Your task to perform on an android device: Open display settings Image 0: 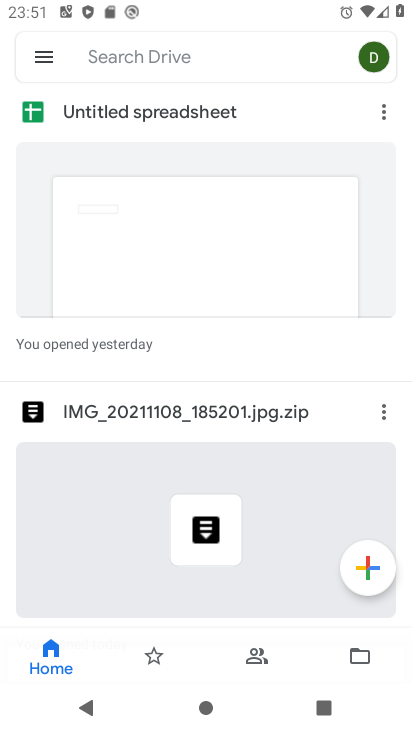
Step 0: press home button
Your task to perform on an android device: Open display settings Image 1: 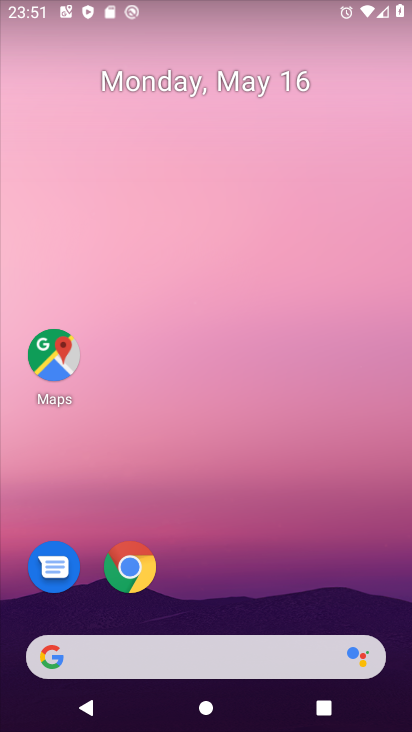
Step 1: drag from (242, 516) to (155, 146)
Your task to perform on an android device: Open display settings Image 2: 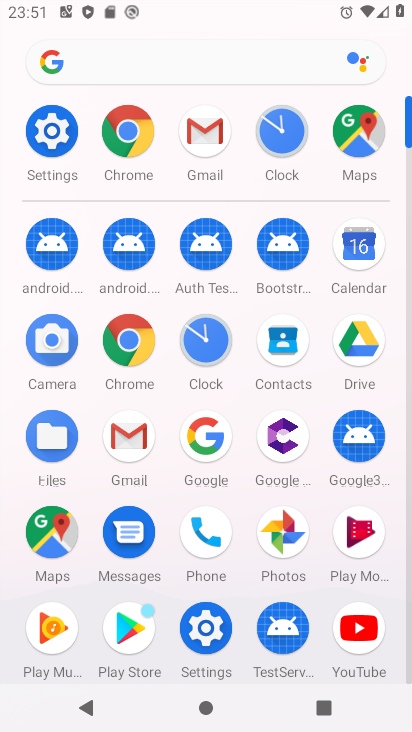
Step 2: click (58, 126)
Your task to perform on an android device: Open display settings Image 3: 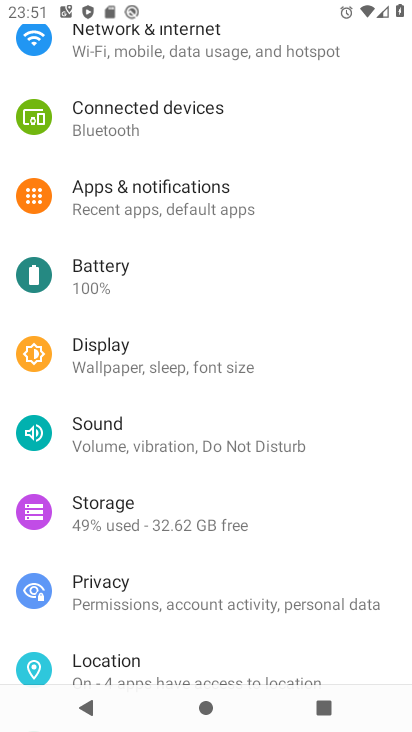
Step 3: click (99, 345)
Your task to perform on an android device: Open display settings Image 4: 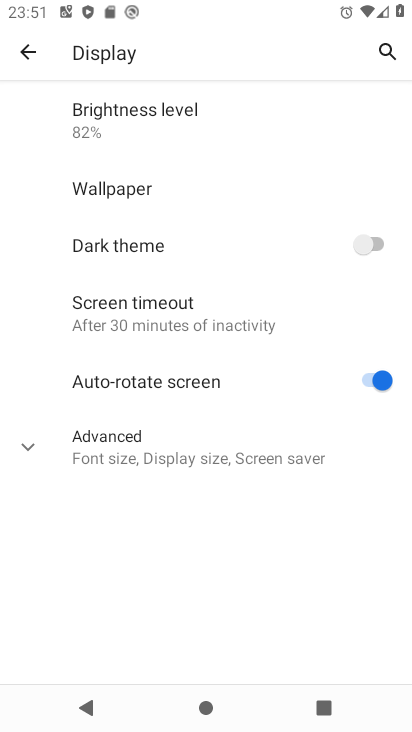
Step 4: task complete